Your task to perform on an android device: Clear the cart on newegg. Add logitech g910 to the cart on newegg, then select checkout. Image 0: 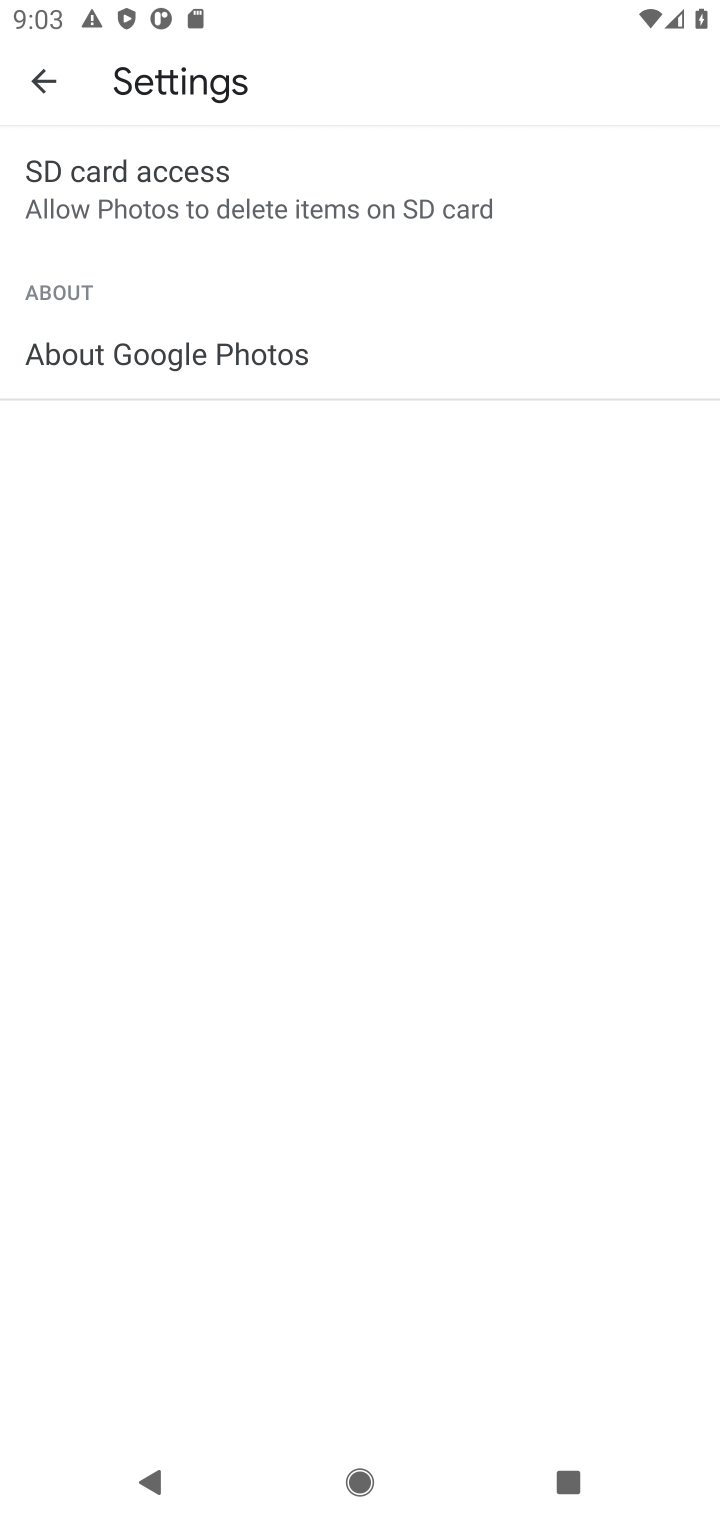
Step 0: press home button
Your task to perform on an android device: Clear the cart on newegg. Add logitech g910 to the cart on newegg, then select checkout. Image 1: 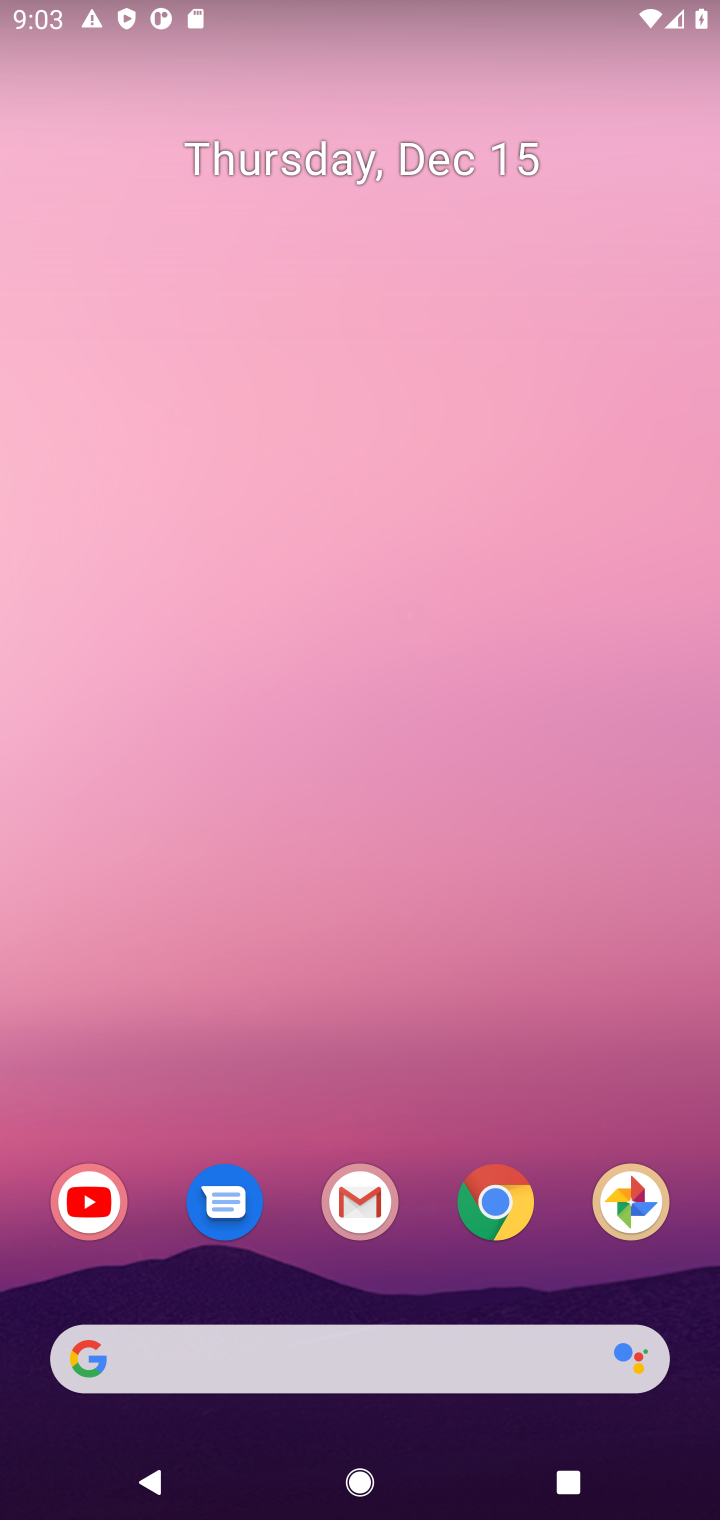
Step 1: click (493, 1202)
Your task to perform on an android device: Clear the cart on newegg. Add logitech g910 to the cart on newegg, then select checkout. Image 2: 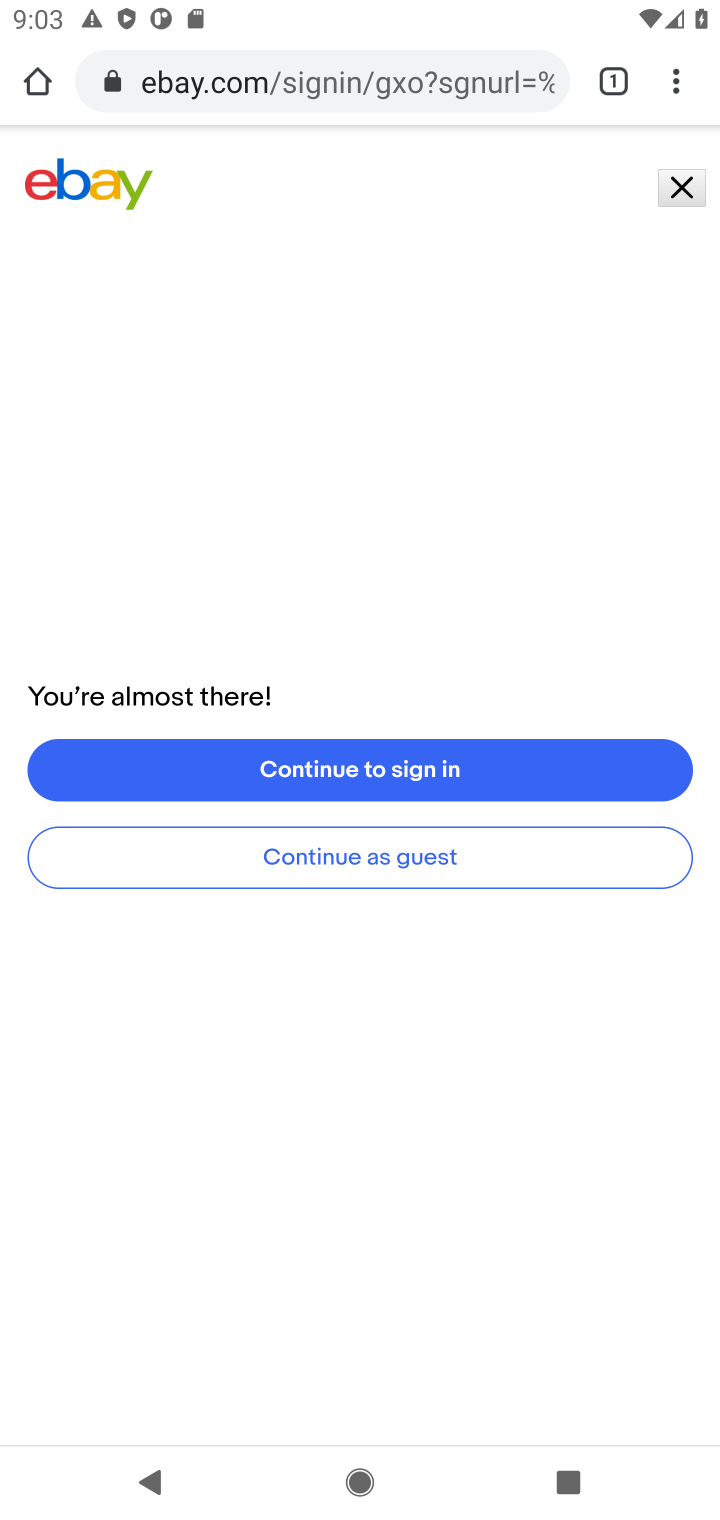
Step 2: click (249, 88)
Your task to perform on an android device: Clear the cart on newegg. Add logitech g910 to the cart on newegg, then select checkout. Image 3: 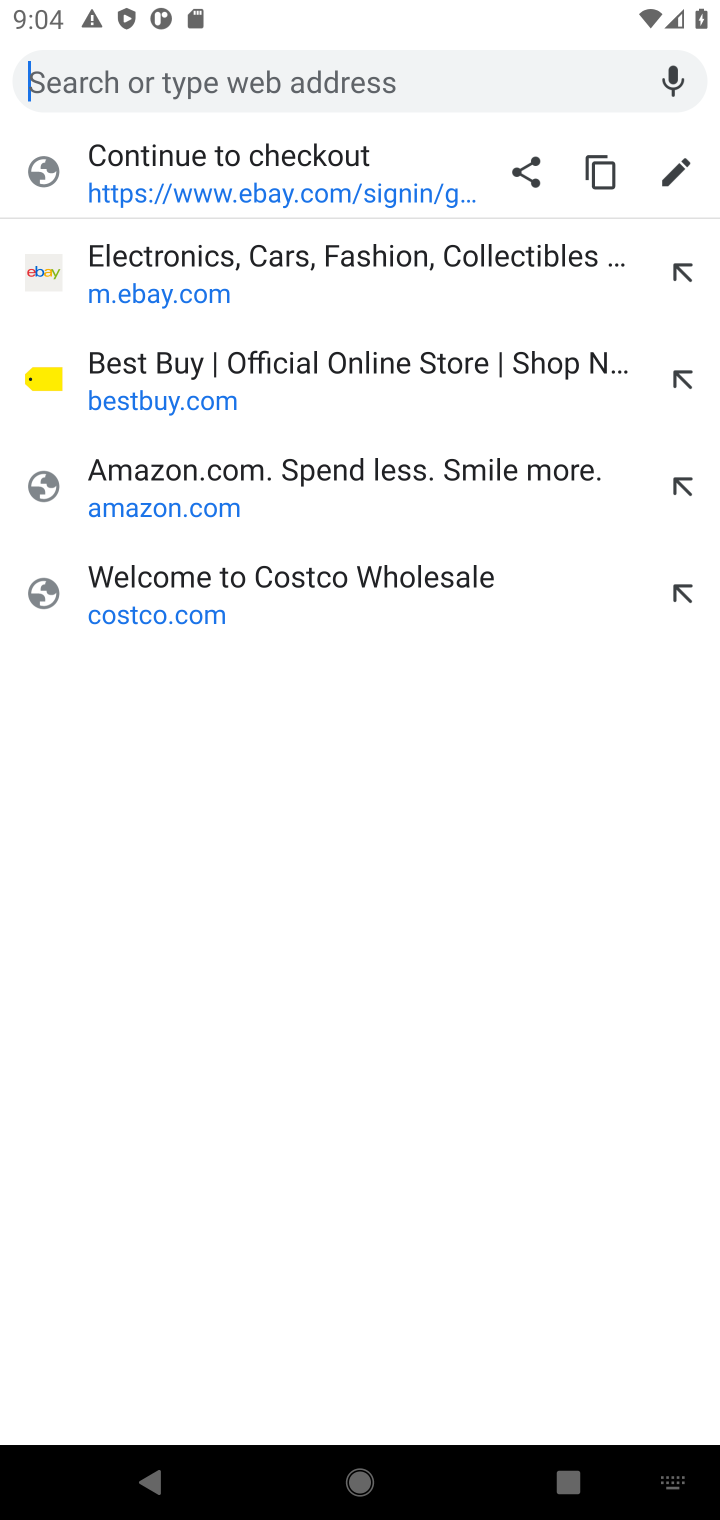
Step 3: type "newegg.com"
Your task to perform on an android device: Clear the cart on newegg. Add logitech g910 to the cart on newegg, then select checkout. Image 4: 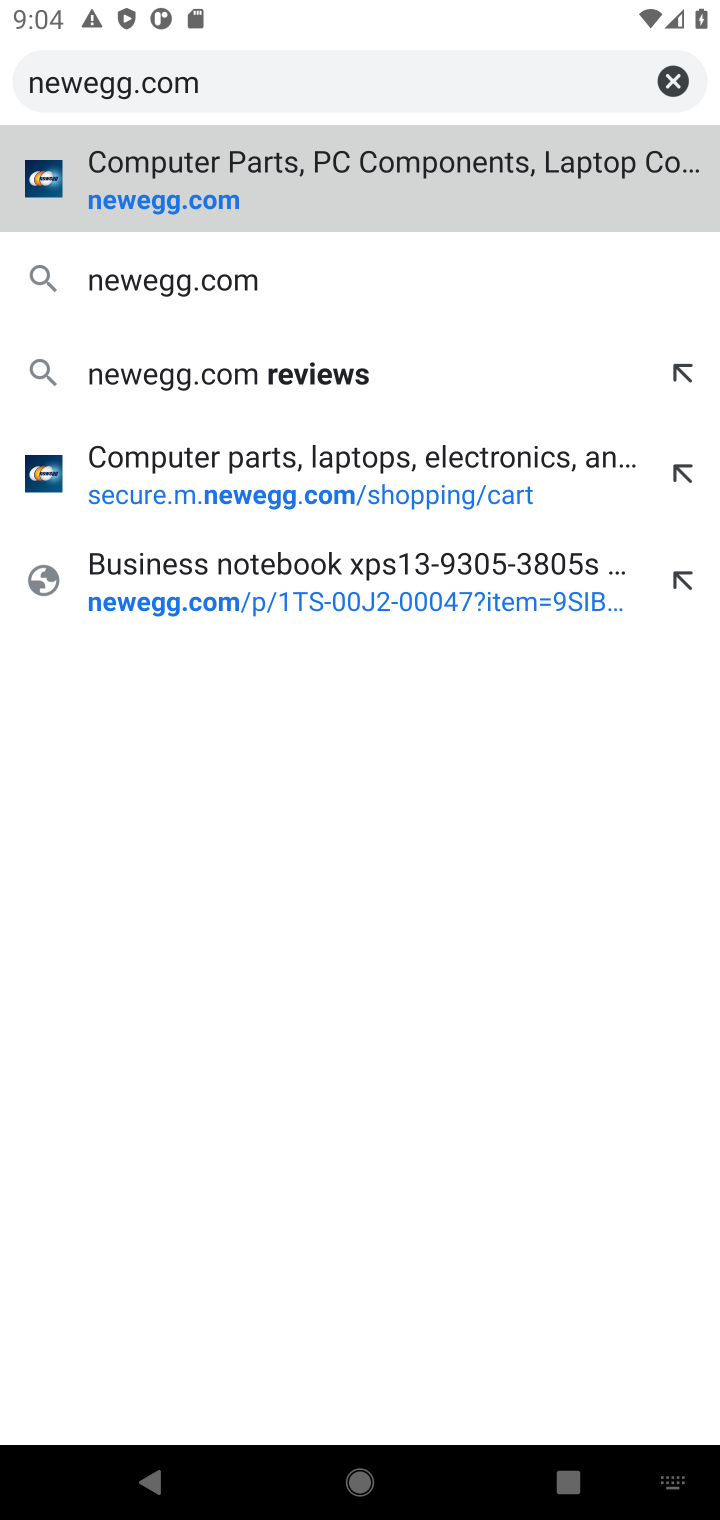
Step 4: click (170, 199)
Your task to perform on an android device: Clear the cart on newegg. Add logitech g910 to the cart on newegg, then select checkout. Image 5: 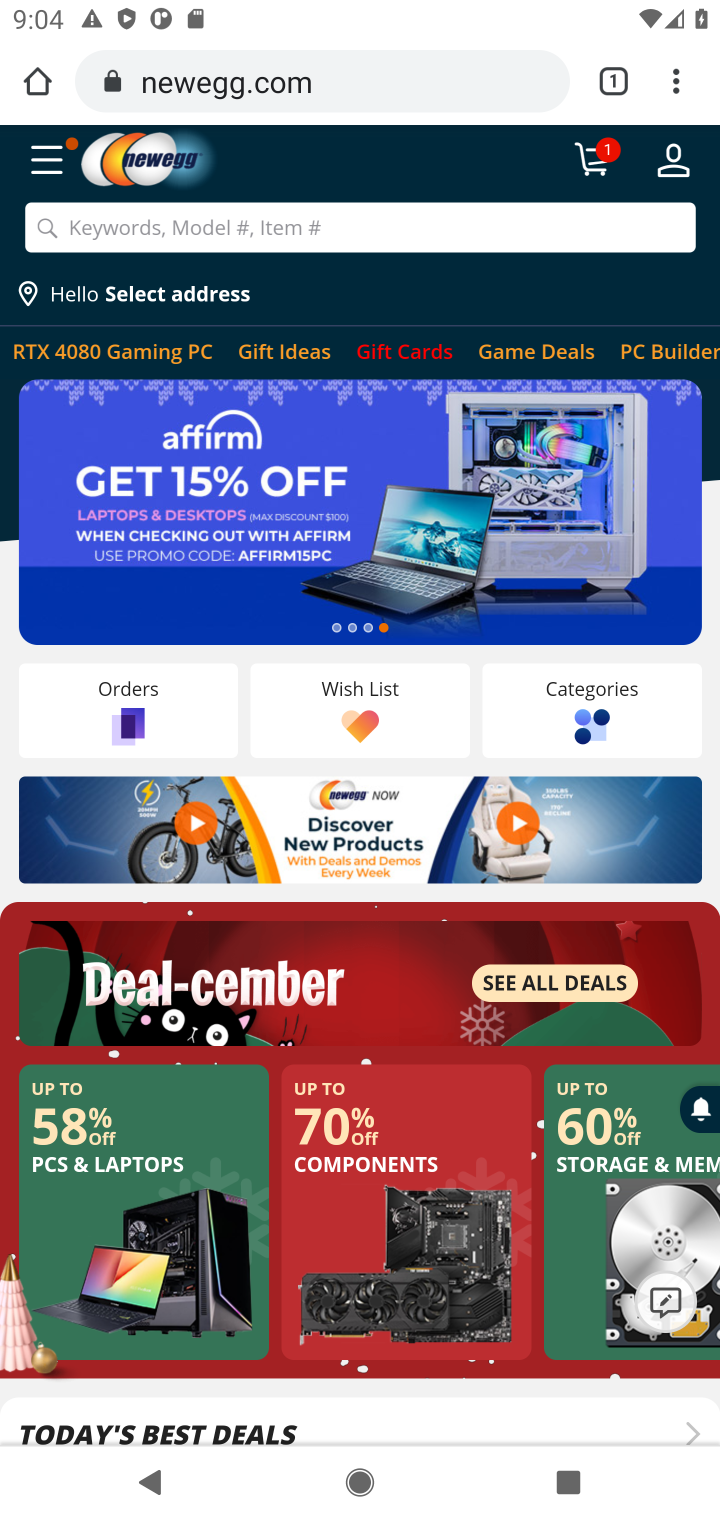
Step 5: click (598, 162)
Your task to perform on an android device: Clear the cart on newegg. Add logitech g910 to the cart on newegg, then select checkout. Image 6: 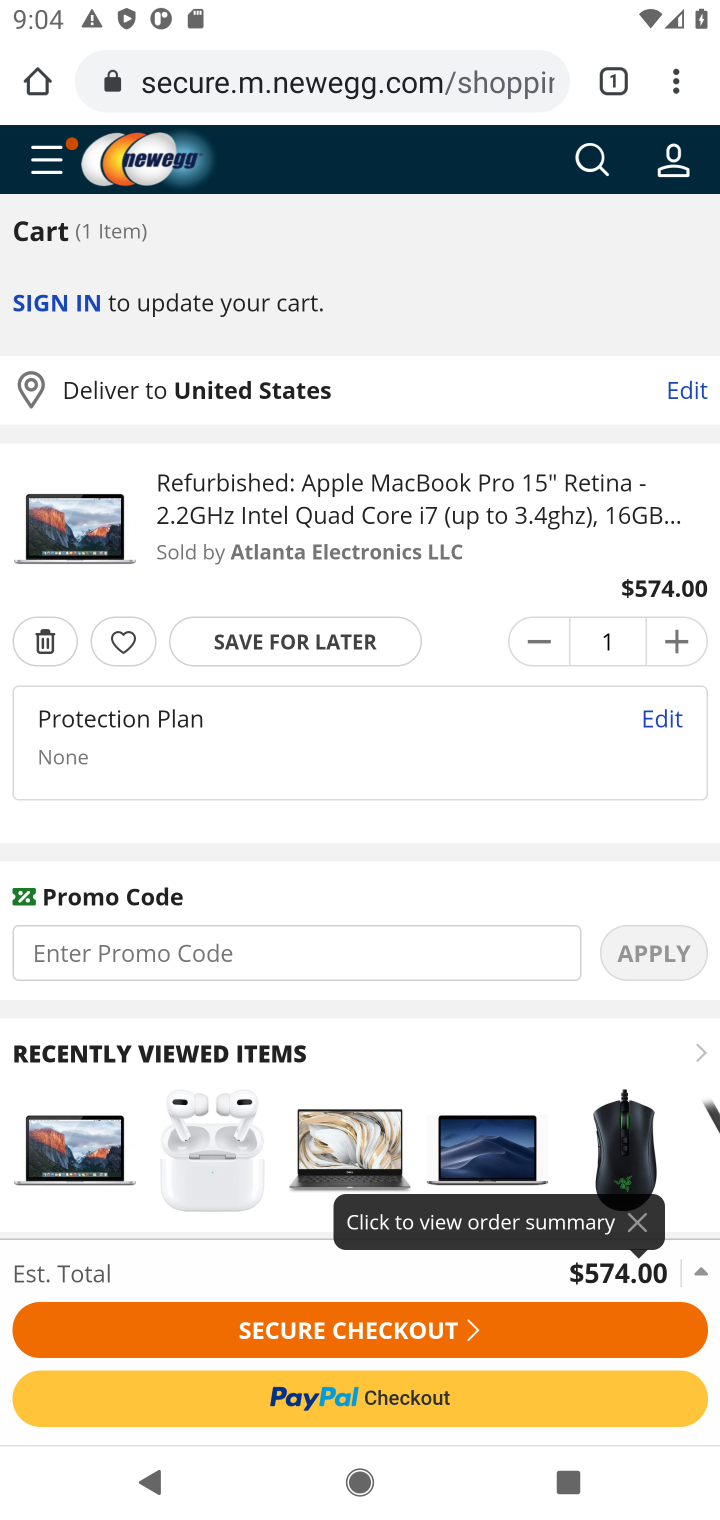
Step 6: click (44, 649)
Your task to perform on an android device: Clear the cart on newegg. Add logitech g910 to the cart on newegg, then select checkout. Image 7: 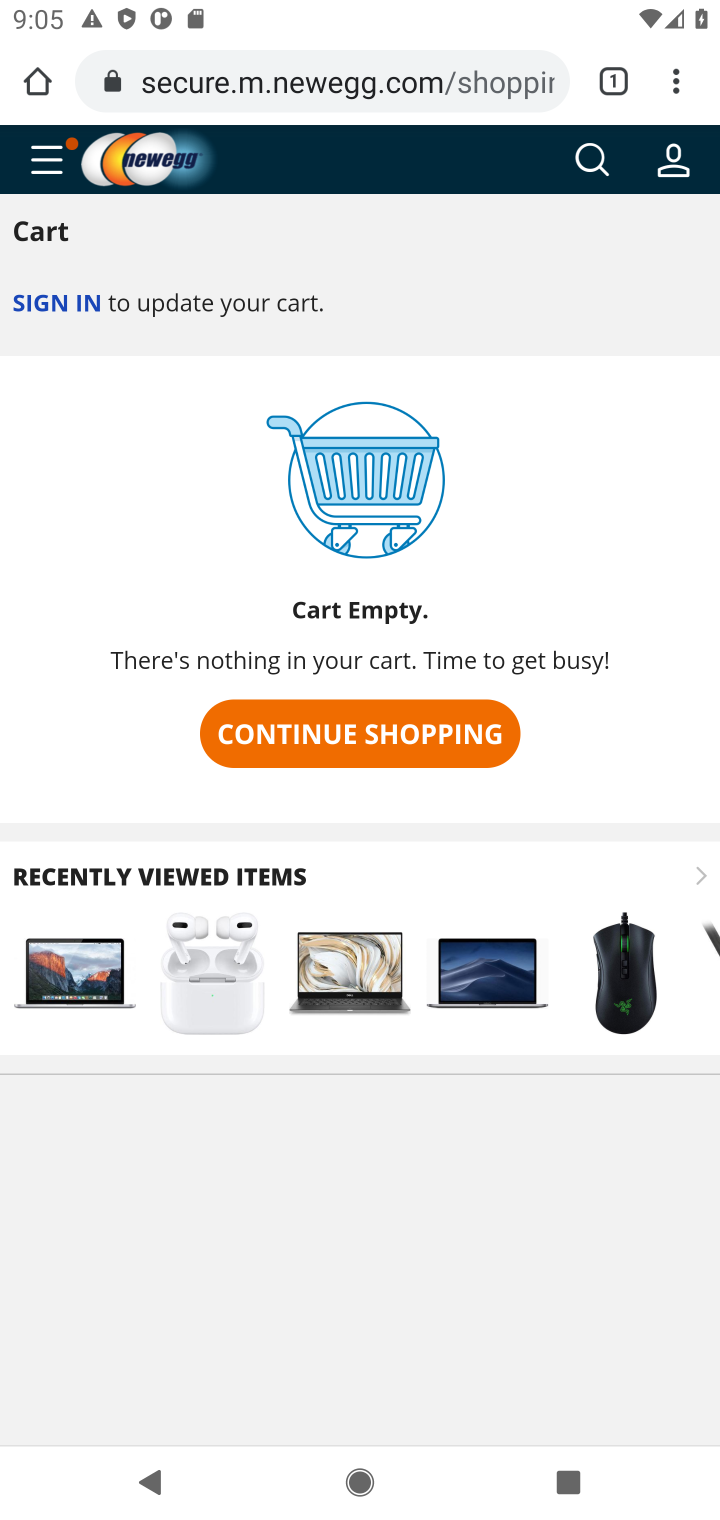
Step 7: click (610, 163)
Your task to perform on an android device: Clear the cart on newegg. Add logitech g910 to the cart on newegg, then select checkout. Image 8: 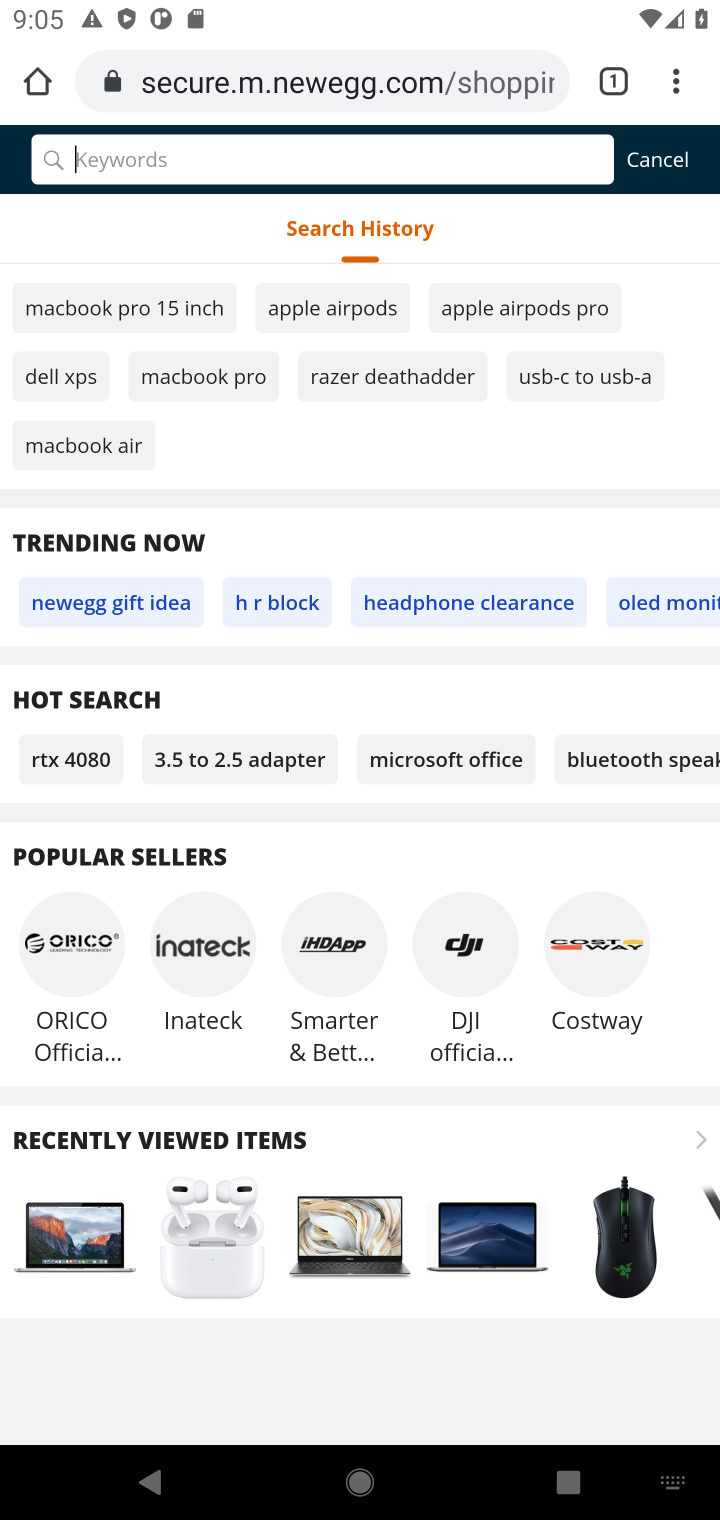
Step 8: type "logitech g910"
Your task to perform on an android device: Clear the cart on newegg. Add logitech g910 to the cart on newegg, then select checkout. Image 9: 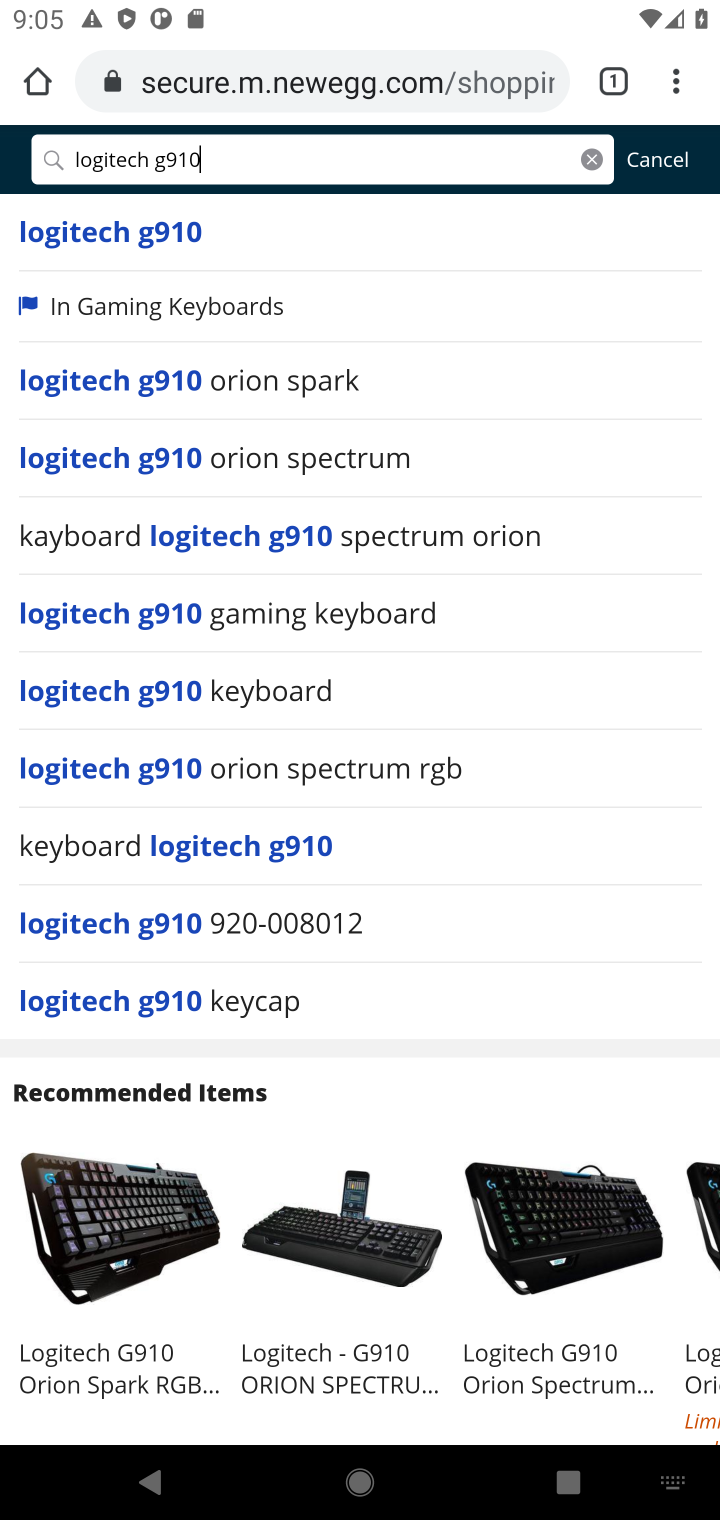
Step 9: click (133, 235)
Your task to perform on an android device: Clear the cart on newegg. Add logitech g910 to the cart on newegg, then select checkout. Image 10: 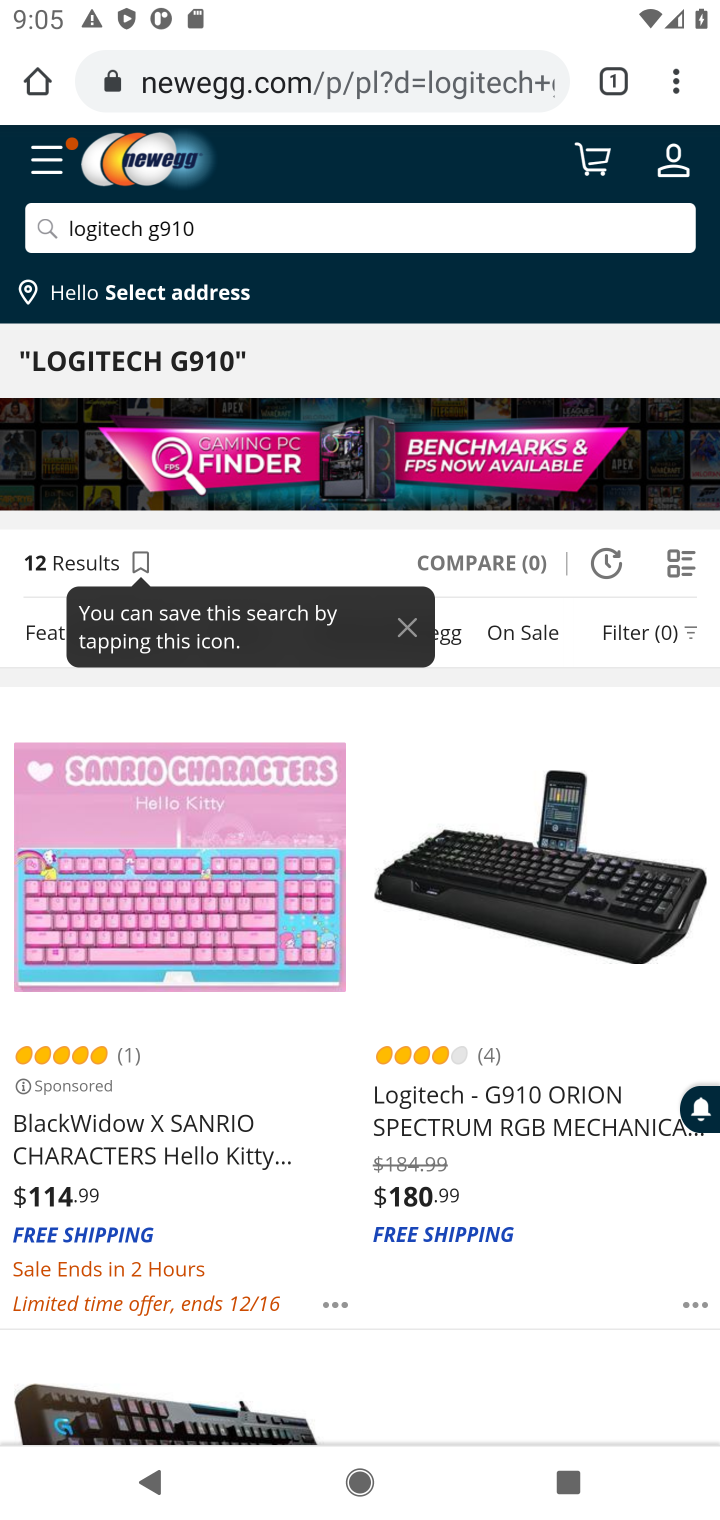
Step 10: click (480, 1130)
Your task to perform on an android device: Clear the cart on newegg. Add logitech g910 to the cart on newegg, then select checkout. Image 11: 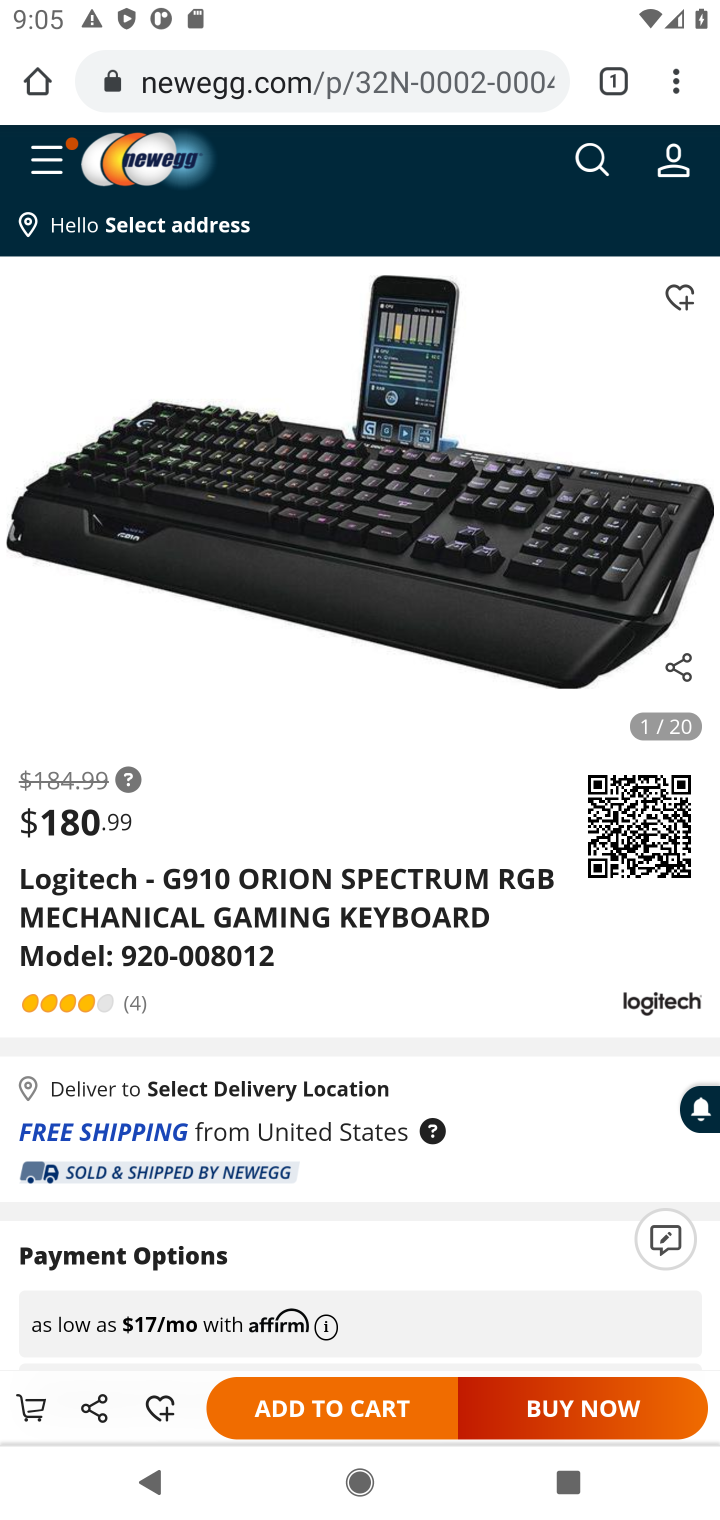
Step 11: click (348, 1415)
Your task to perform on an android device: Clear the cart on newegg. Add logitech g910 to the cart on newegg, then select checkout. Image 12: 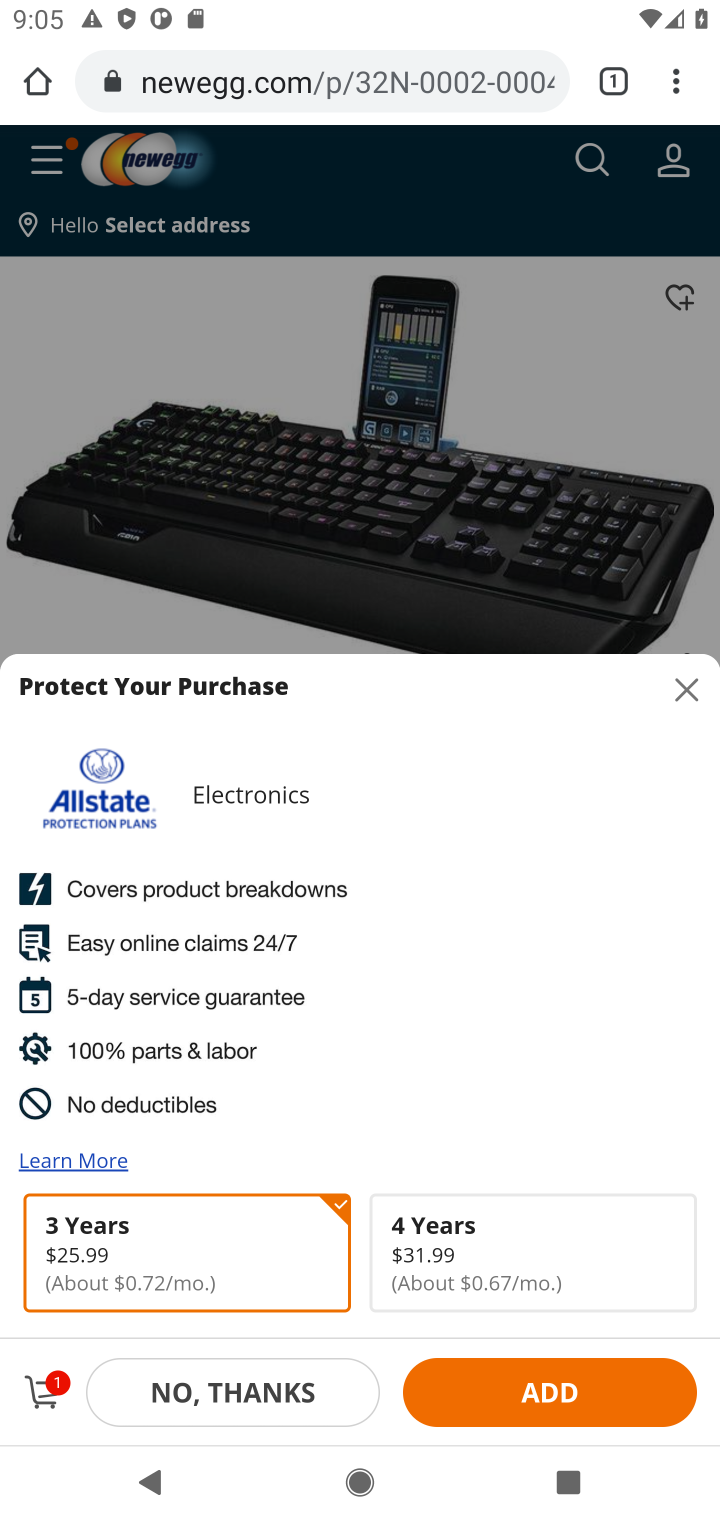
Step 12: click (46, 1394)
Your task to perform on an android device: Clear the cart on newegg. Add logitech g910 to the cart on newegg, then select checkout. Image 13: 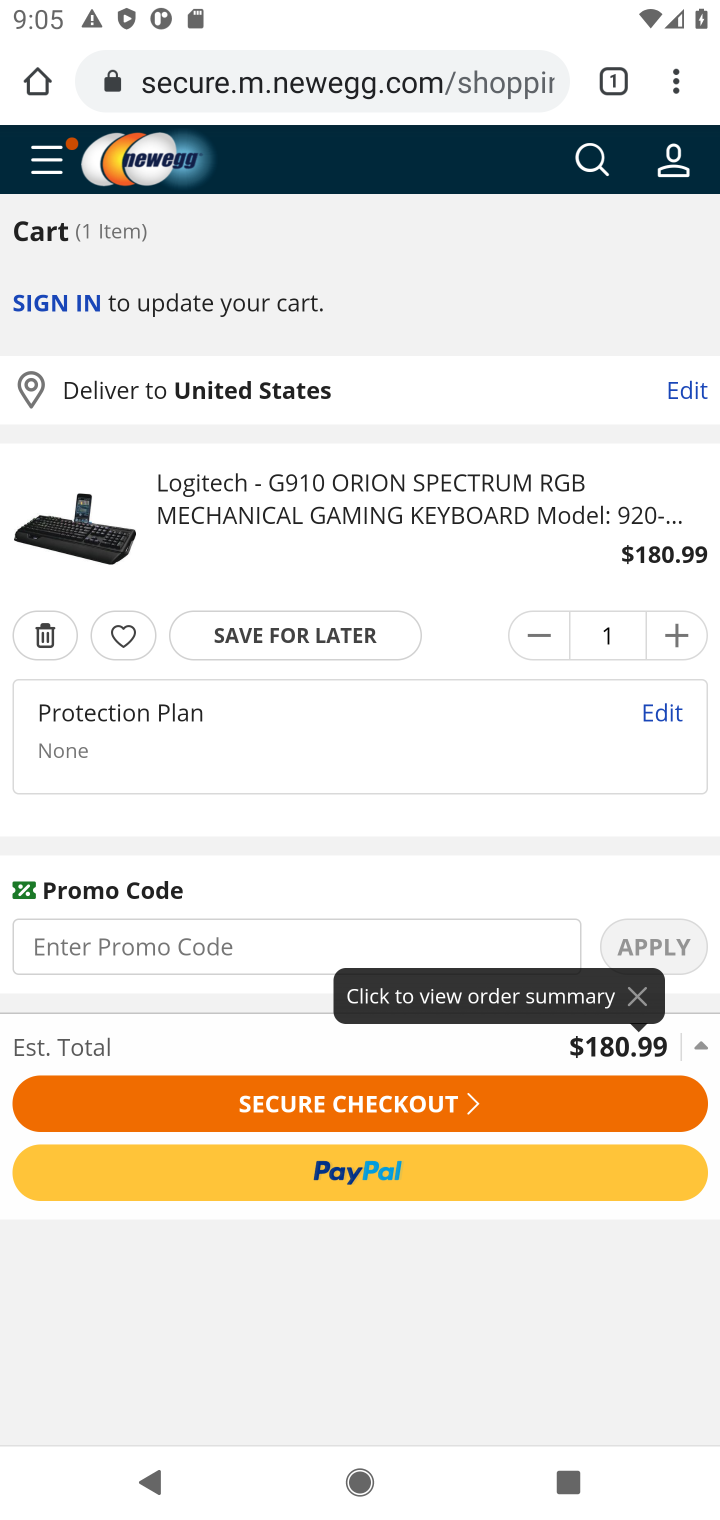
Step 13: click (352, 1102)
Your task to perform on an android device: Clear the cart on newegg. Add logitech g910 to the cart on newegg, then select checkout. Image 14: 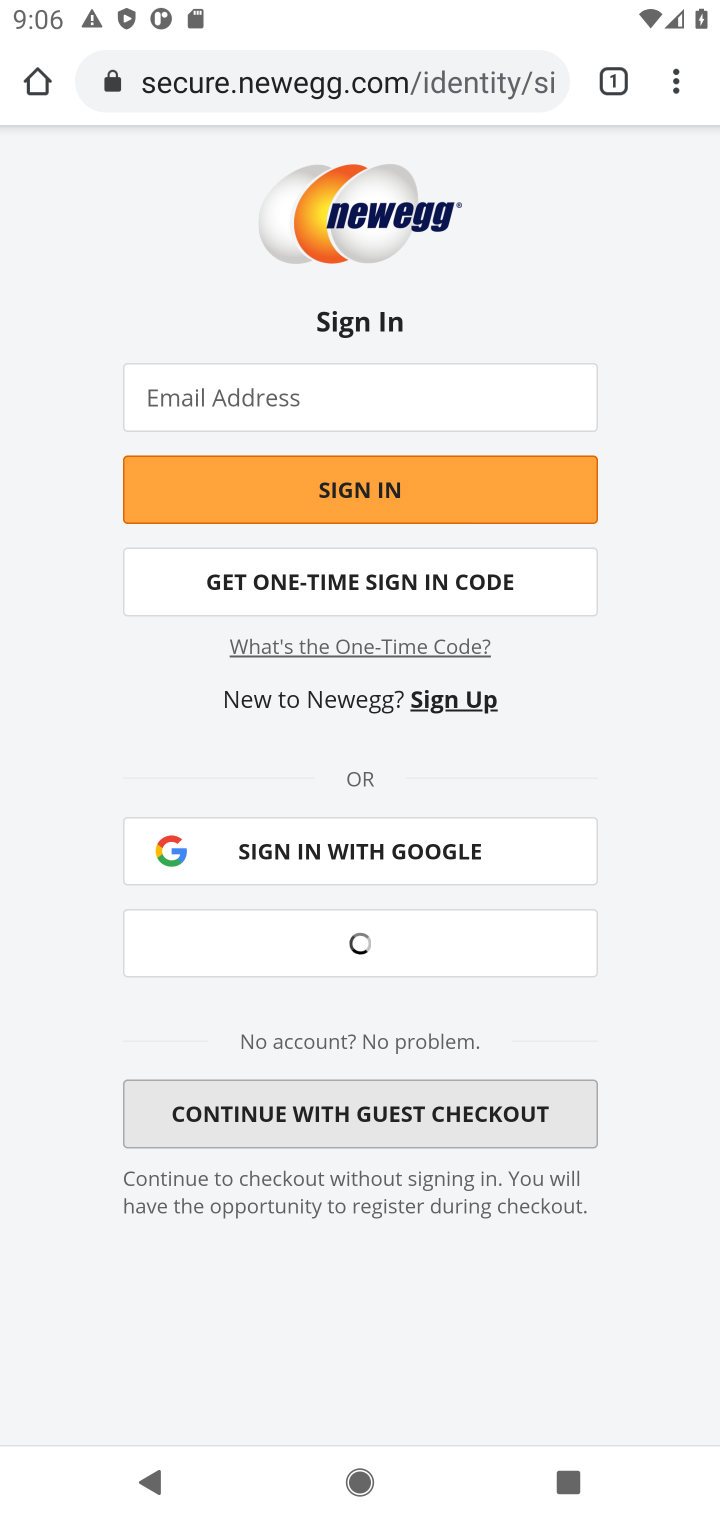
Step 14: task complete